Your task to perform on an android device: open wifi settings Image 0: 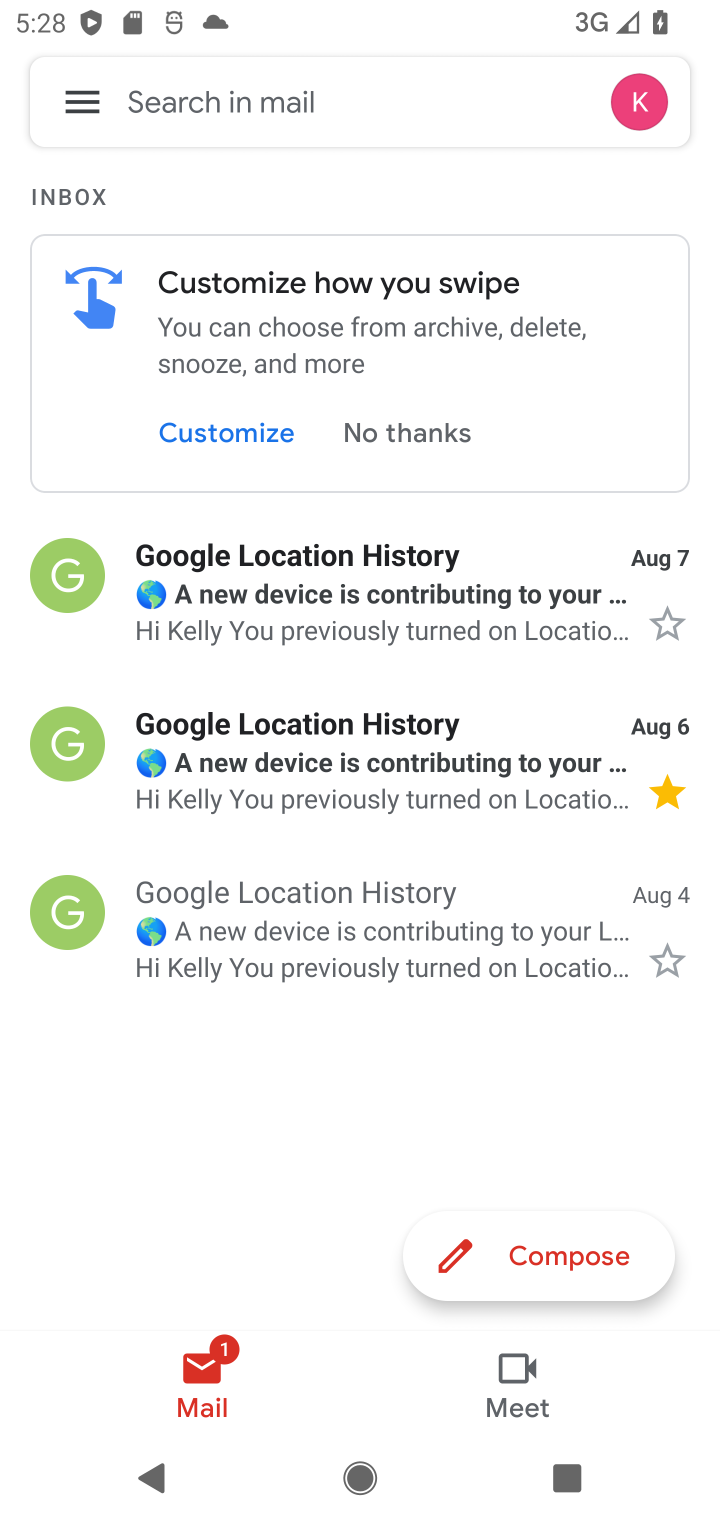
Step 0: press home button
Your task to perform on an android device: open wifi settings Image 1: 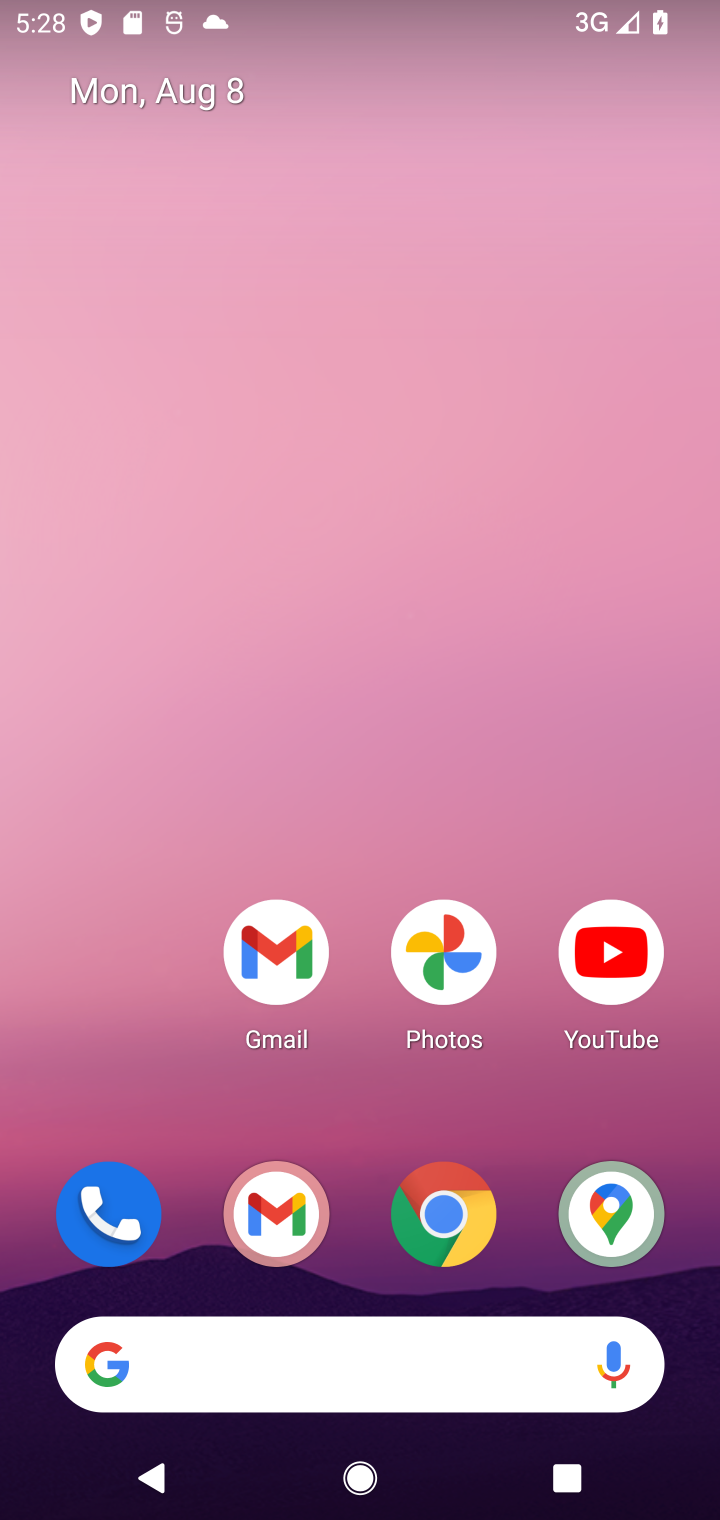
Step 1: drag from (361, 1201) to (365, 210)
Your task to perform on an android device: open wifi settings Image 2: 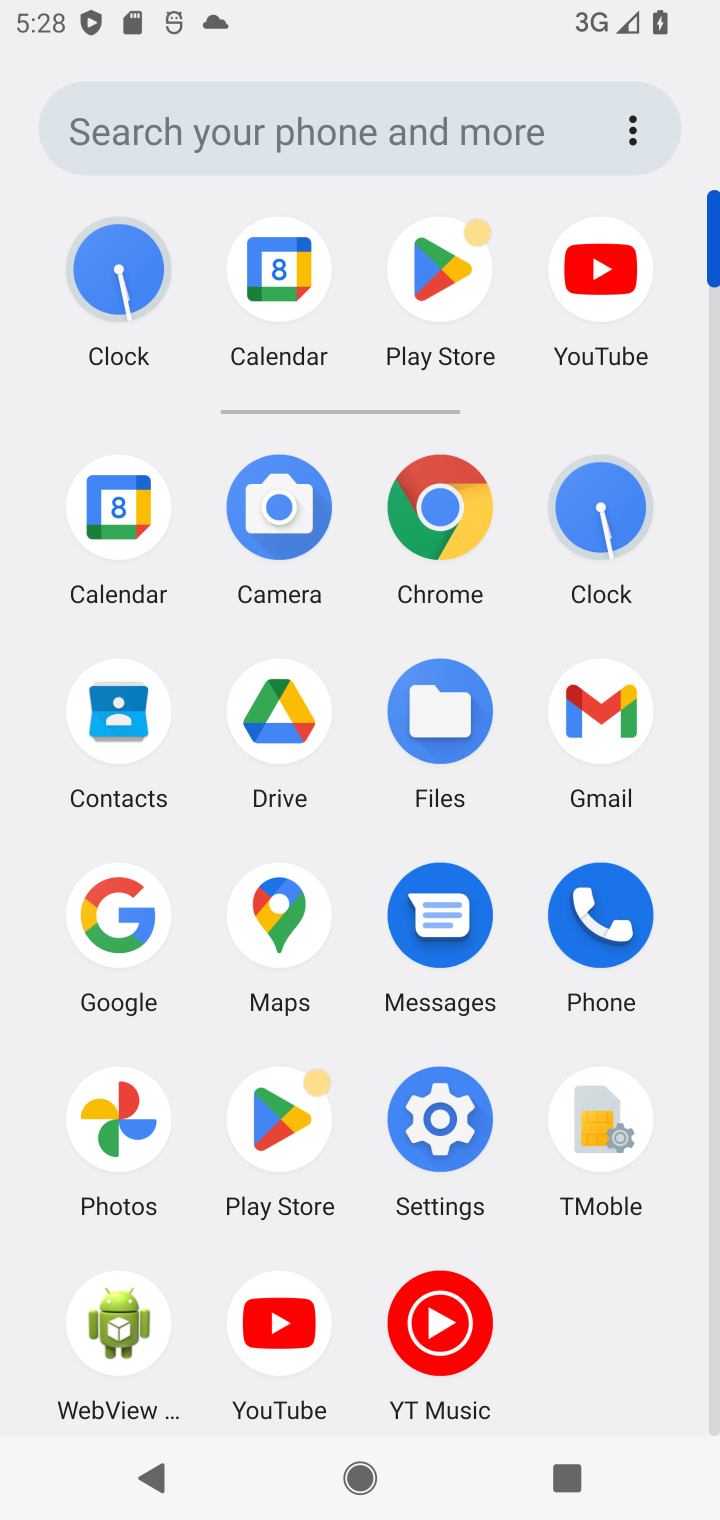
Step 2: click (434, 1110)
Your task to perform on an android device: open wifi settings Image 3: 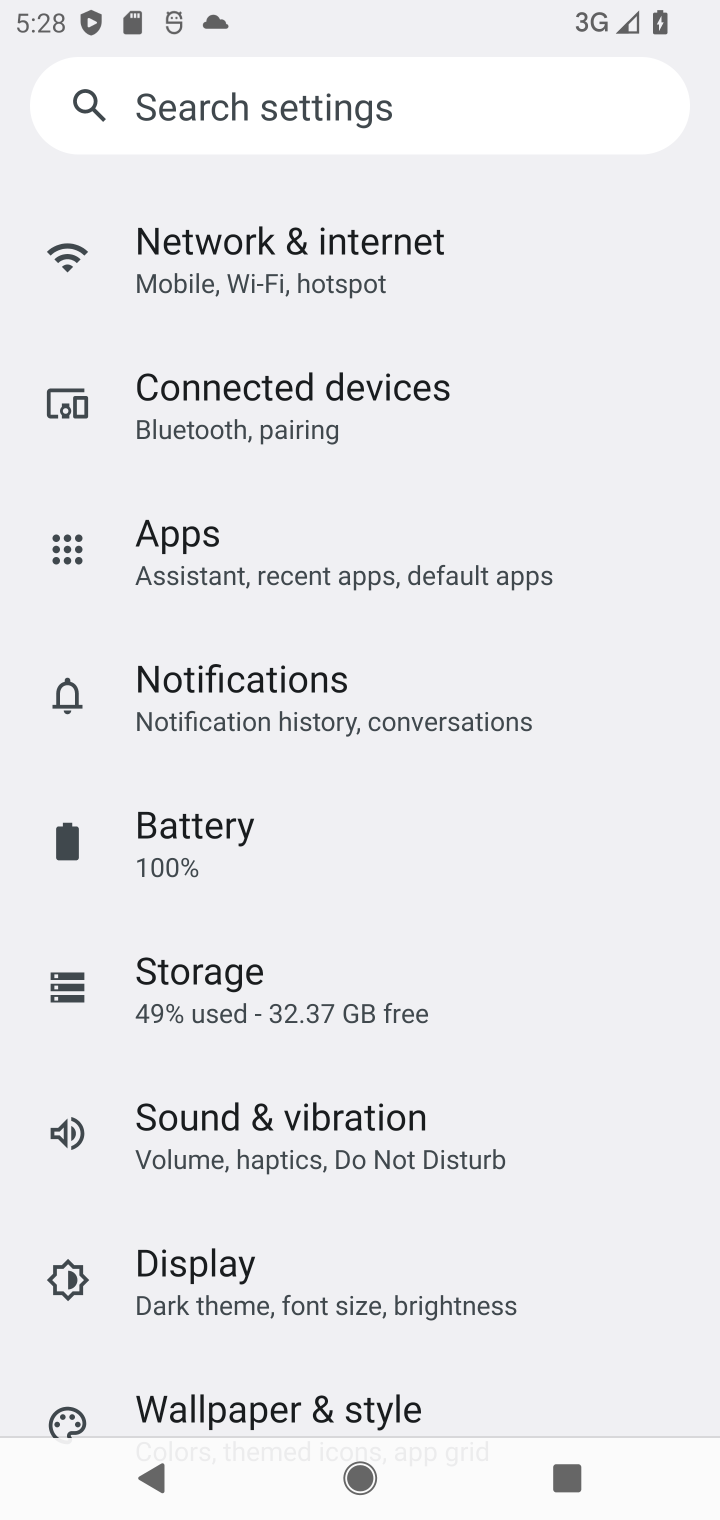
Step 3: click (195, 250)
Your task to perform on an android device: open wifi settings Image 4: 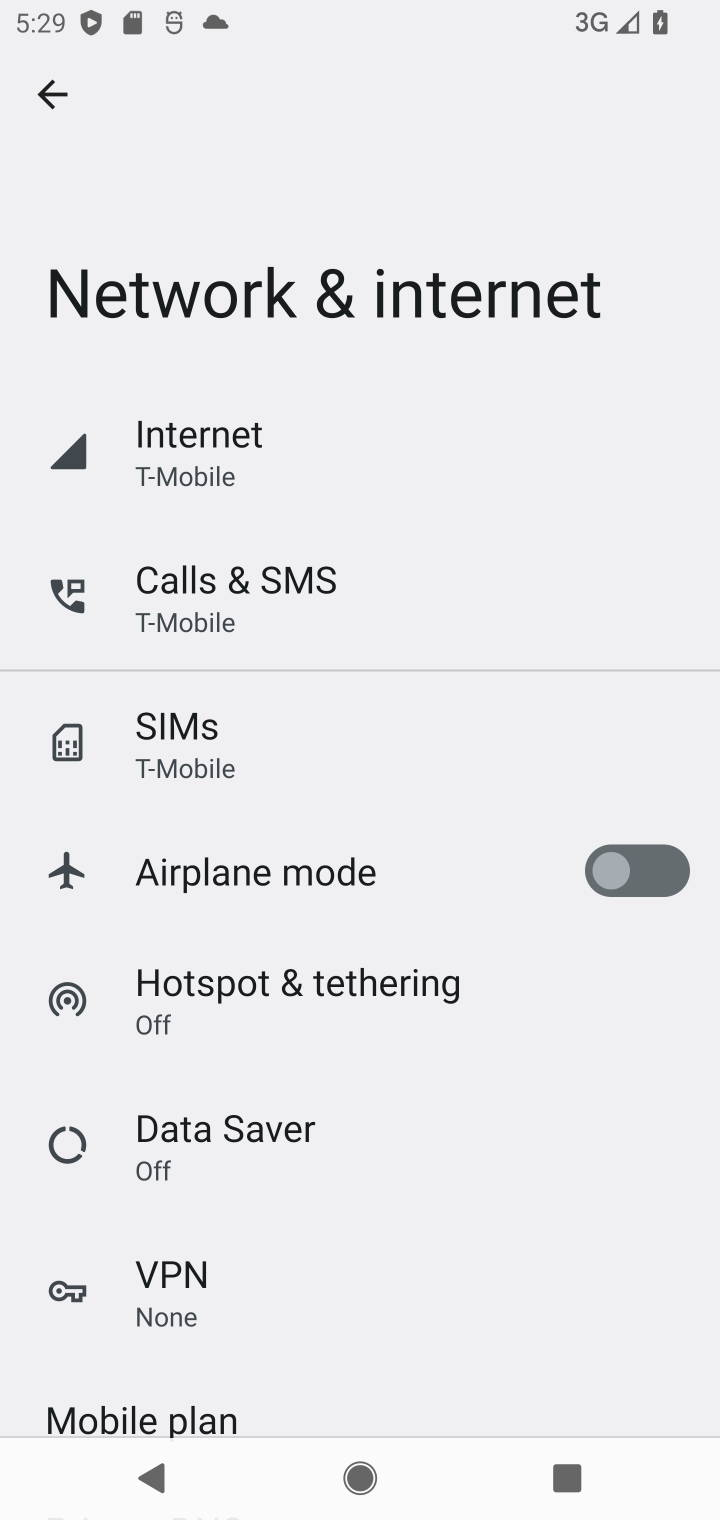
Step 4: click (156, 443)
Your task to perform on an android device: open wifi settings Image 5: 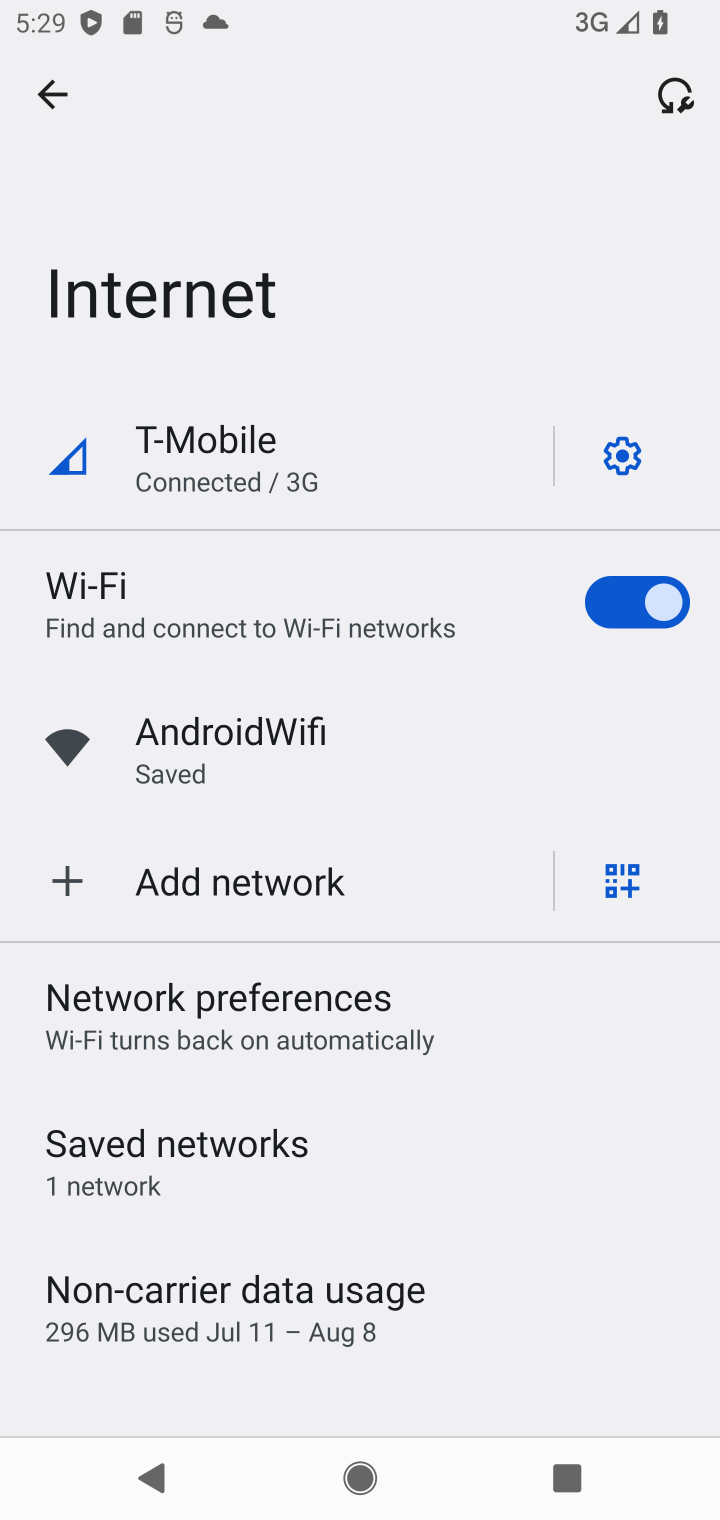
Step 5: task complete